Your task to perform on an android device: toggle airplane mode Image 0: 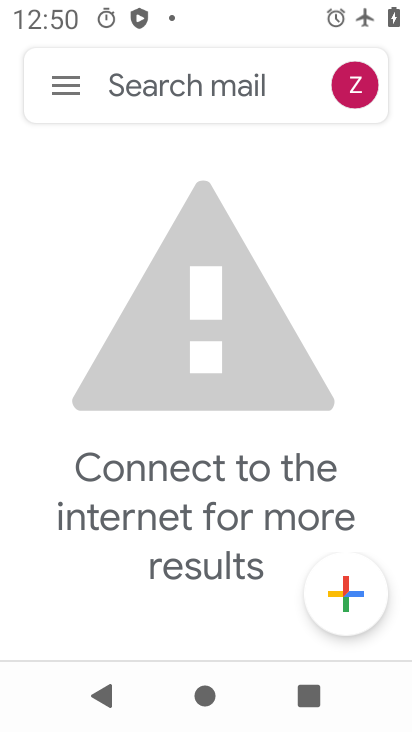
Step 0: press home button
Your task to perform on an android device: toggle airplane mode Image 1: 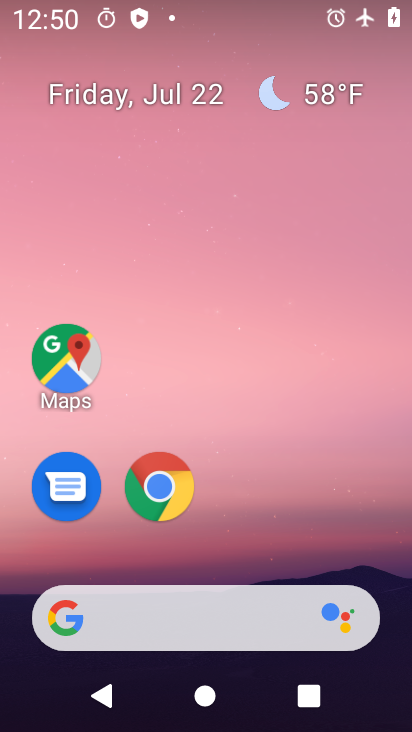
Step 1: drag from (351, 520) to (338, 98)
Your task to perform on an android device: toggle airplane mode Image 2: 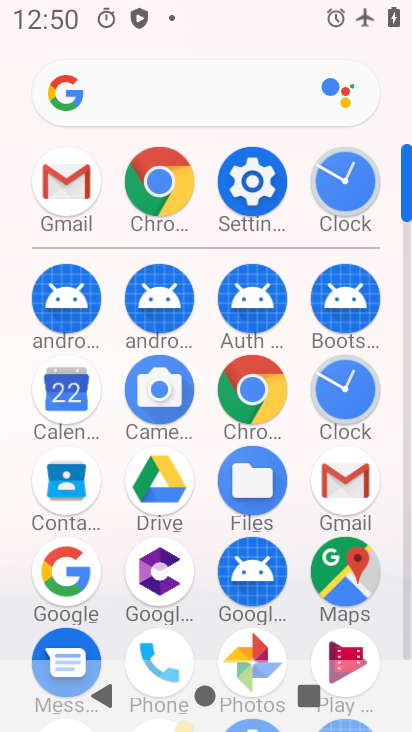
Step 2: click (262, 195)
Your task to perform on an android device: toggle airplane mode Image 3: 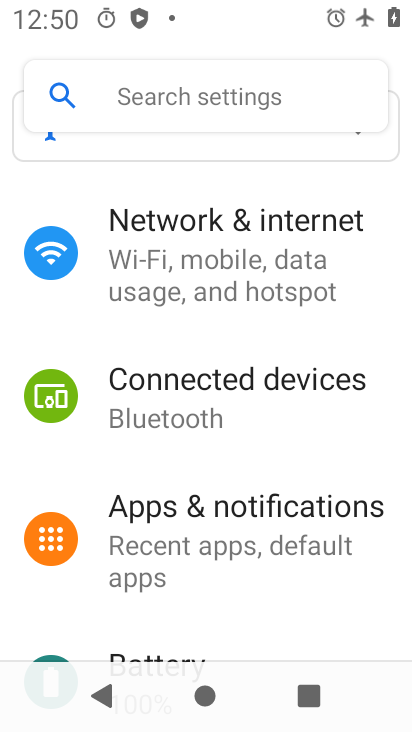
Step 3: drag from (342, 544) to (339, 431)
Your task to perform on an android device: toggle airplane mode Image 4: 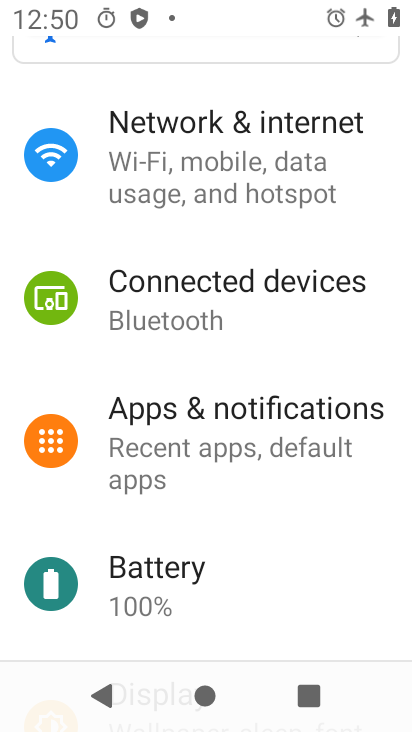
Step 4: drag from (345, 534) to (346, 445)
Your task to perform on an android device: toggle airplane mode Image 5: 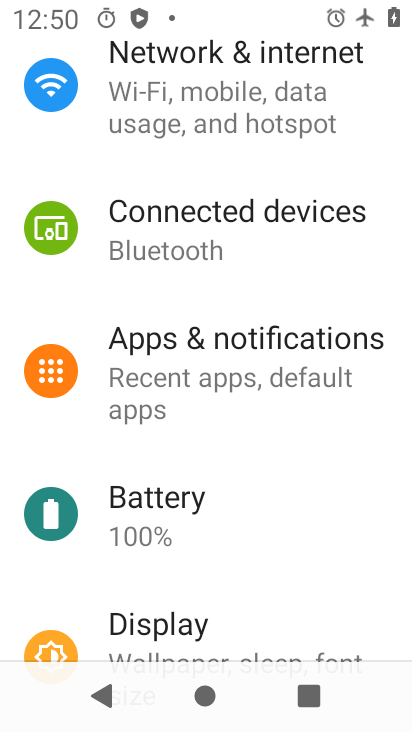
Step 5: drag from (340, 541) to (340, 421)
Your task to perform on an android device: toggle airplane mode Image 6: 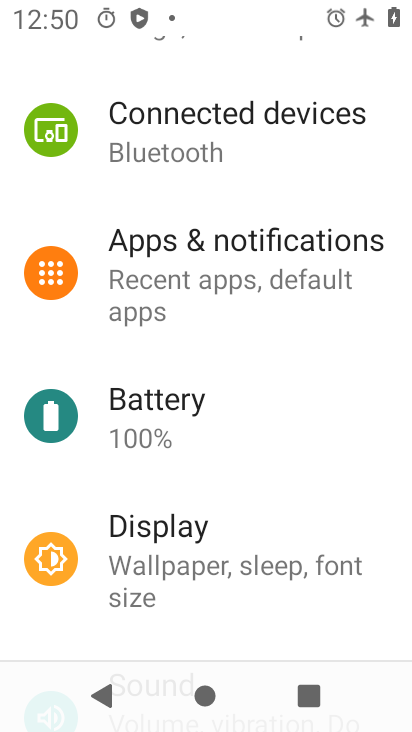
Step 6: drag from (338, 528) to (338, 408)
Your task to perform on an android device: toggle airplane mode Image 7: 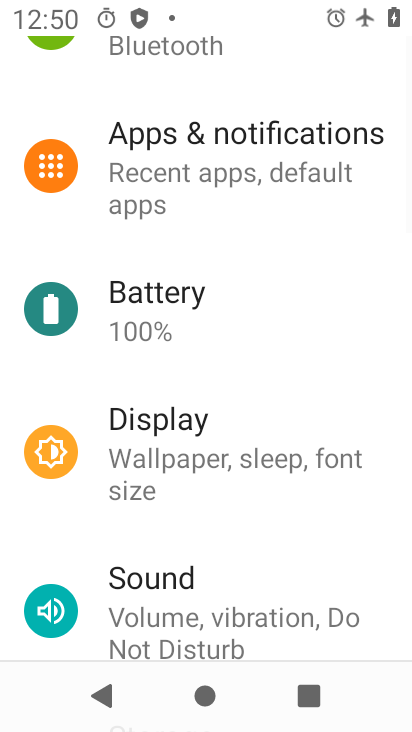
Step 7: drag from (343, 543) to (348, 442)
Your task to perform on an android device: toggle airplane mode Image 8: 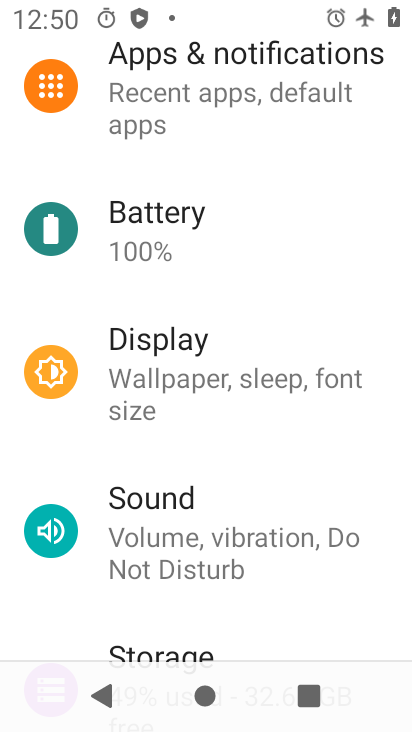
Step 8: drag from (366, 587) to (369, 466)
Your task to perform on an android device: toggle airplane mode Image 9: 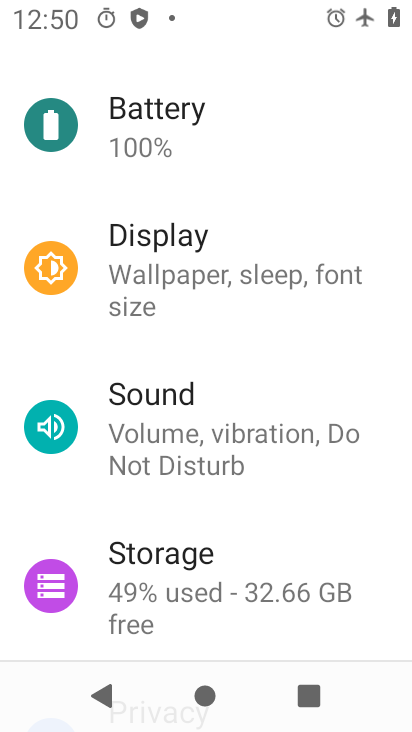
Step 9: drag from (370, 599) to (373, 446)
Your task to perform on an android device: toggle airplane mode Image 10: 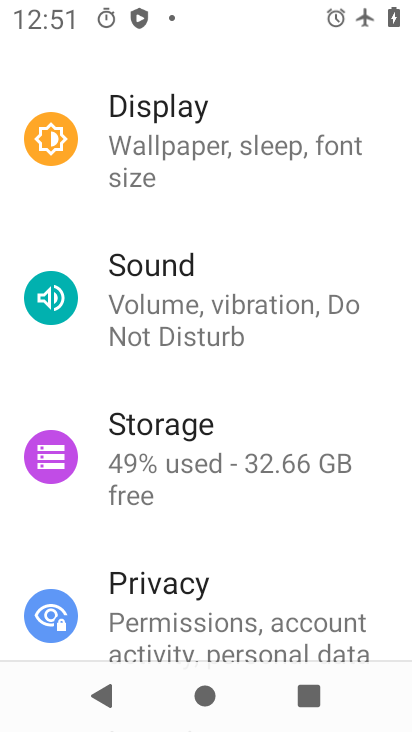
Step 10: drag from (353, 340) to (357, 451)
Your task to perform on an android device: toggle airplane mode Image 11: 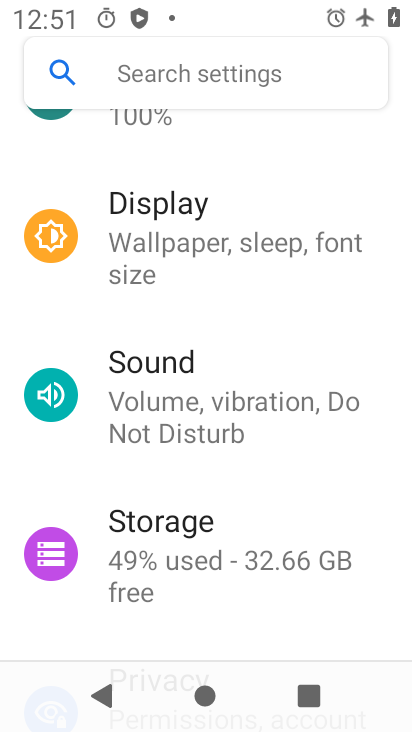
Step 11: drag from (350, 322) to (349, 450)
Your task to perform on an android device: toggle airplane mode Image 12: 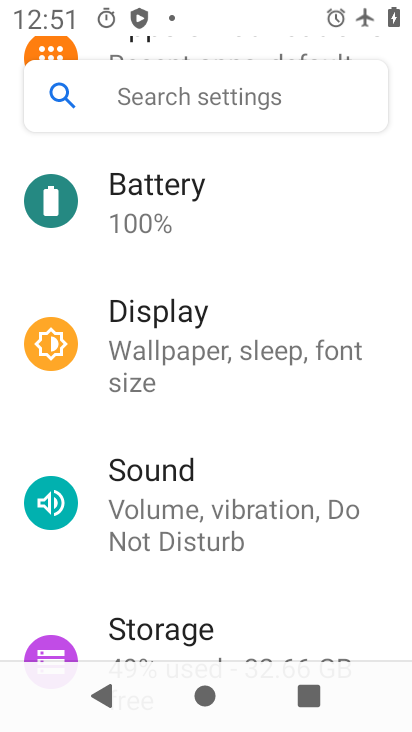
Step 12: drag from (350, 268) to (352, 421)
Your task to perform on an android device: toggle airplane mode Image 13: 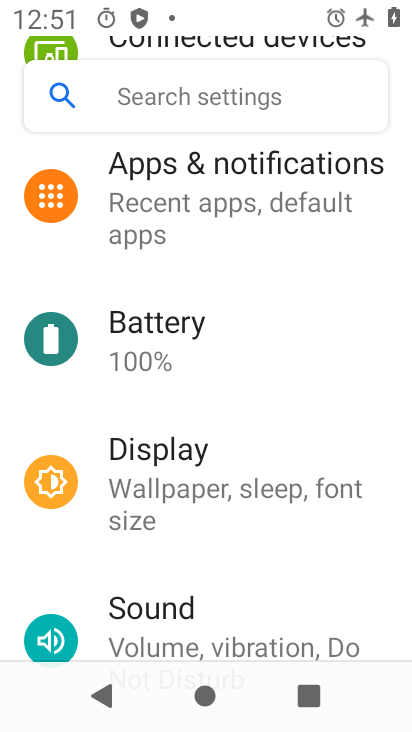
Step 13: drag from (349, 271) to (346, 398)
Your task to perform on an android device: toggle airplane mode Image 14: 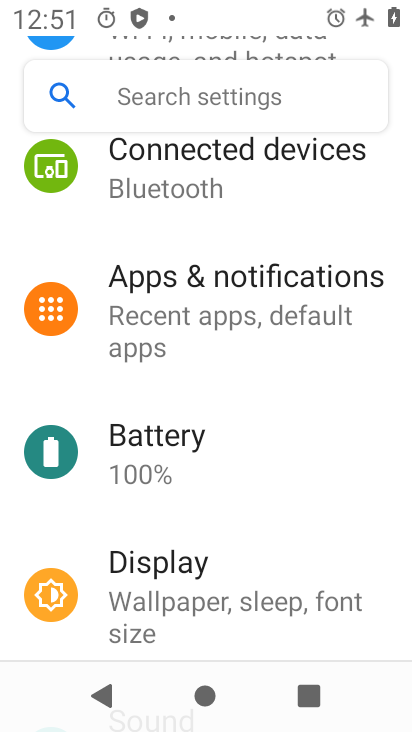
Step 14: drag from (353, 224) to (339, 370)
Your task to perform on an android device: toggle airplane mode Image 15: 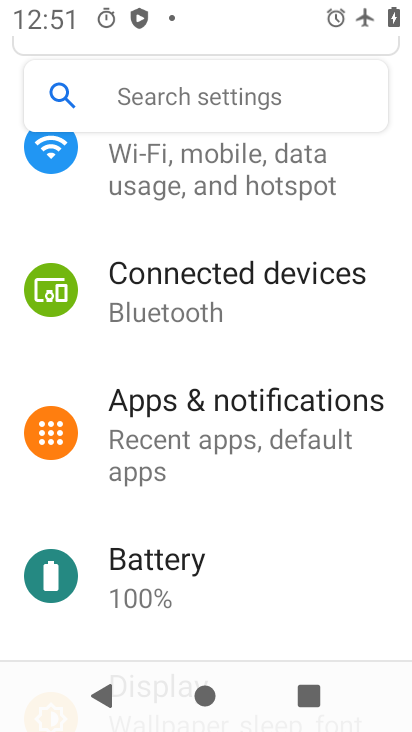
Step 15: drag from (352, 213) to (340, 374)
Your task to perform on an android device: toggle airplane mode Image 16: 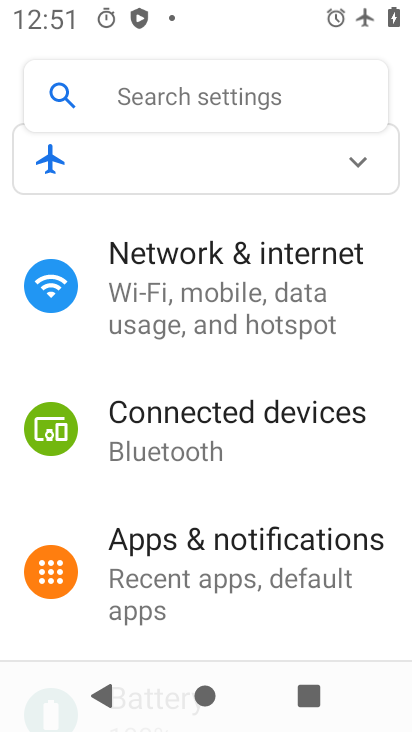
Step 16: click (338, 305)
Your task to perform on an android device: toggle airplane mode Image 17: 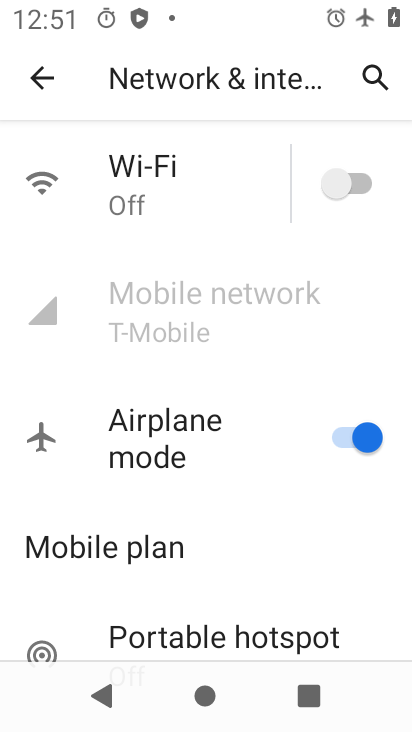
Step 17: click (361, 439)
Your task to perform on an android device: toggle airplane mode Image 18: 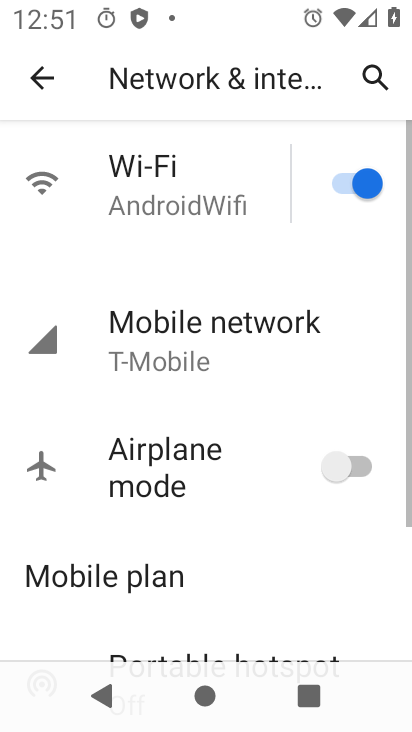
Step 18: task complete